Your task to perform on an android device: Open the stopwatch Image 0: 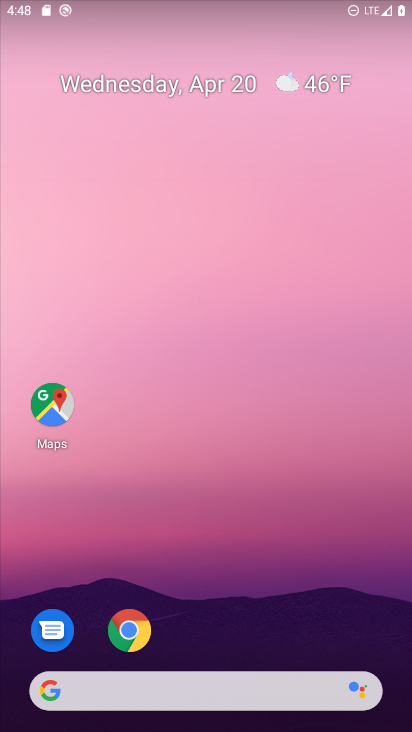
Step 0: drag from (354, 511) to (322, 0)
Your task to perform on an android device: Open the stopwatch Image 1: 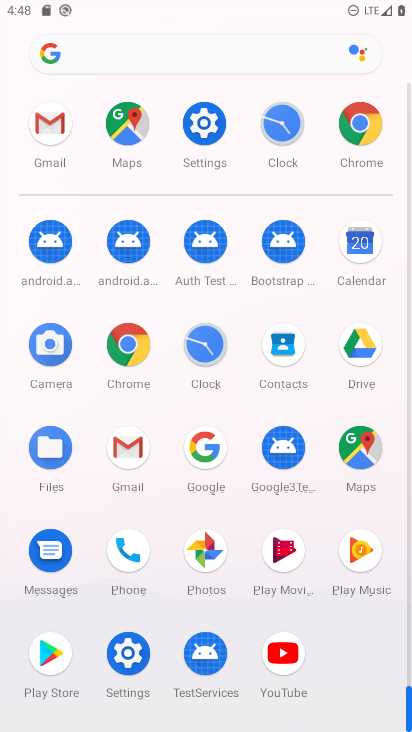
Step 1: click (207, 335)
Your task to perform on an android device: Open the stopwatch Image 2: 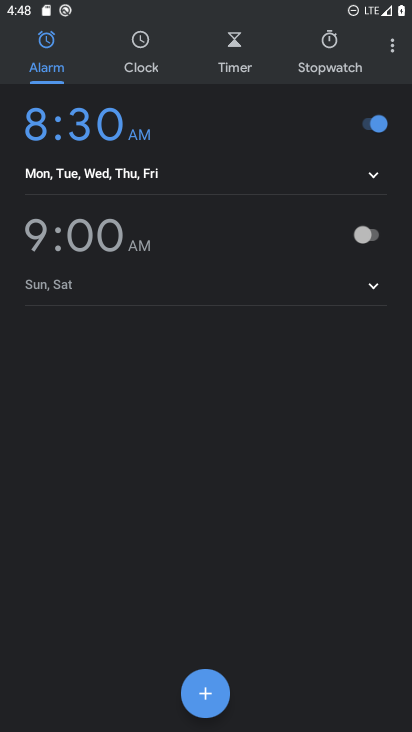
Step 2: click (330, 42)
Your task to perform on an android device: Open the stopwatch Image 3: 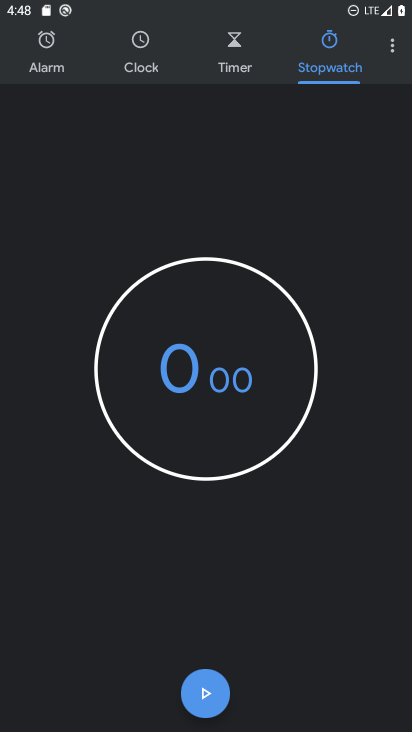
Step 3: click (202, 700)
Your task to perform on an android device: Open the stopwatch Image 4: 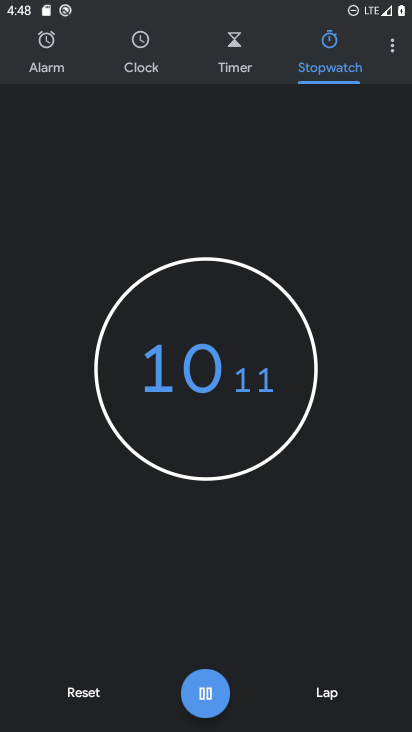
Step 4: task complete